Your task to perform on an android device: move an email to a new category in the gmail app Image 0: 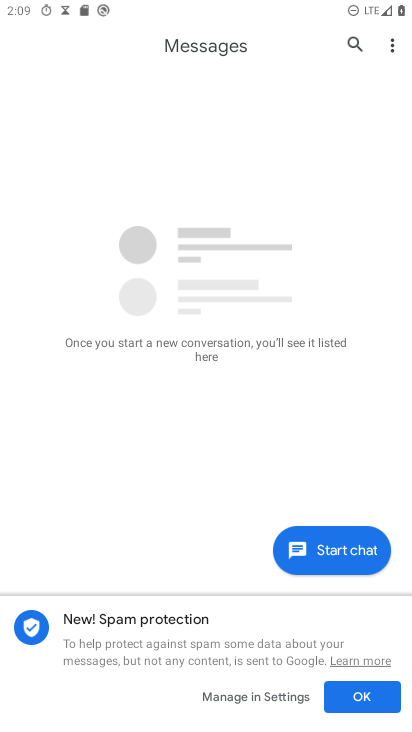
Step 0: press home button
Your task to perform on an android device: move an email to a new category in the gmail app Image 1: 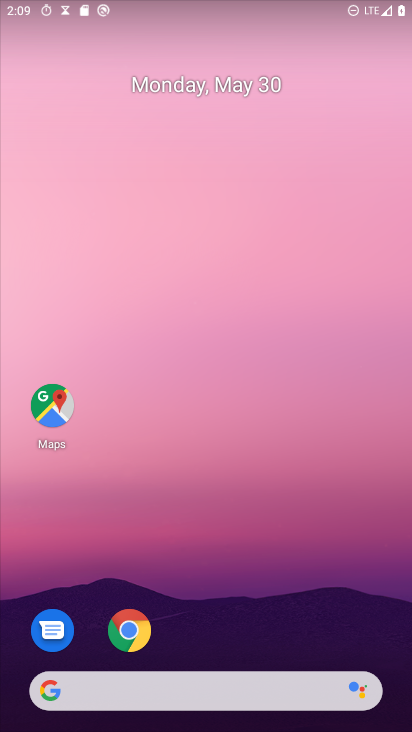
Step 1: drag from (308, 699) to (308, 193)
Your task to perform on an android device: move an email to a new category in the gmail app Image 2: 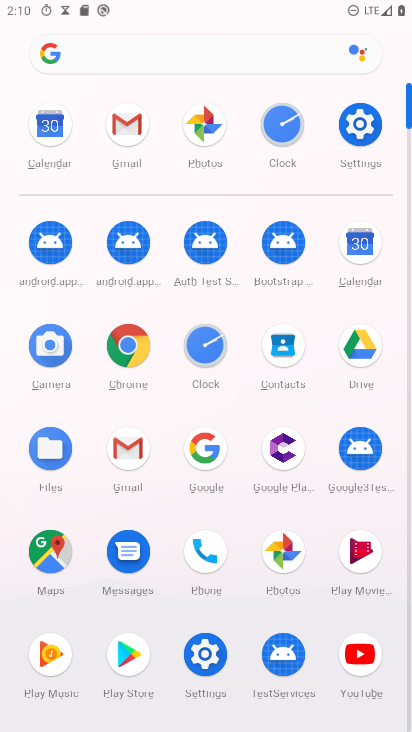
Step 2: click (143, 456)
Your task to perform on an android device: move an email to a new category in the gmail app Image 3: 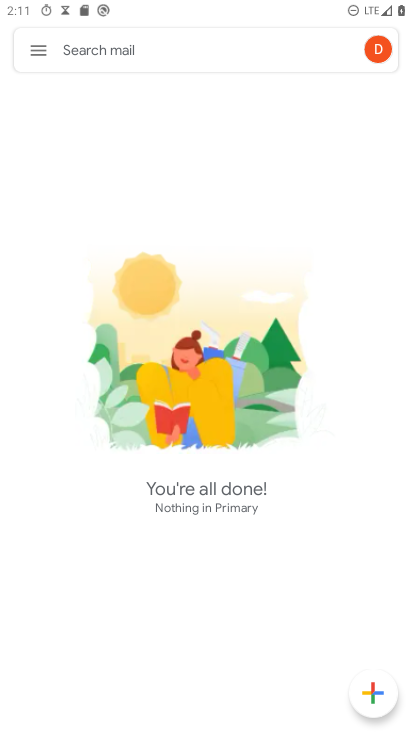
Step 3: click (40, 49)
Your task to perform on an android device: move an email to a new category in the gmail app Image 4: 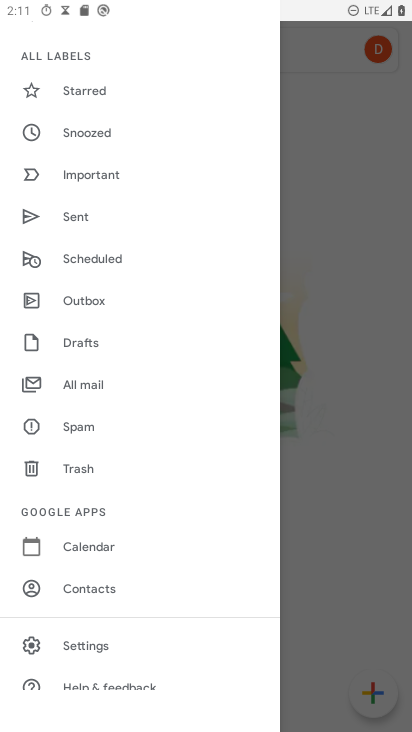
Step 4: click (104, 642)
Your task to perform on an android device: move an email to a new category in the gmail app Image 5: 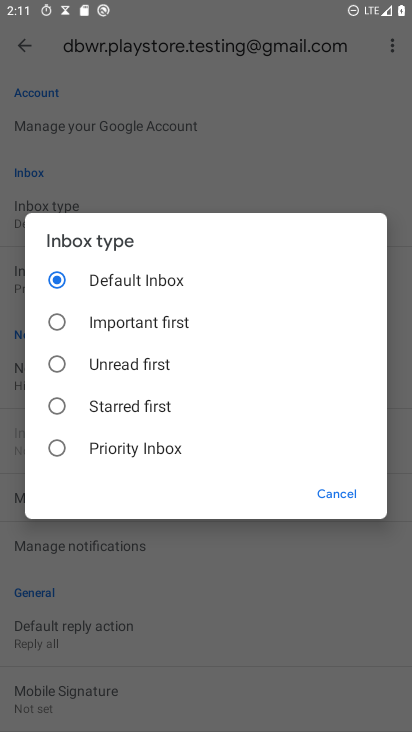
Step 5: click (325, 492)
Your task to perform on an android device: move an email to a new category in the gmail app Image 6: 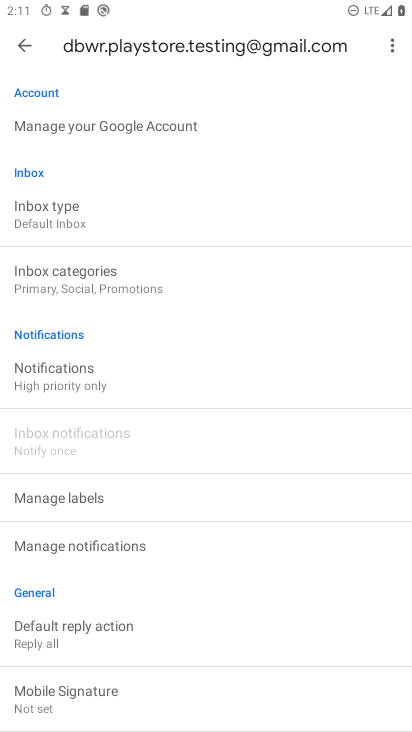
Step 6: click (74, 279)
Your task to perform on an android device: move an email to a new category in the gmail app Image 7: 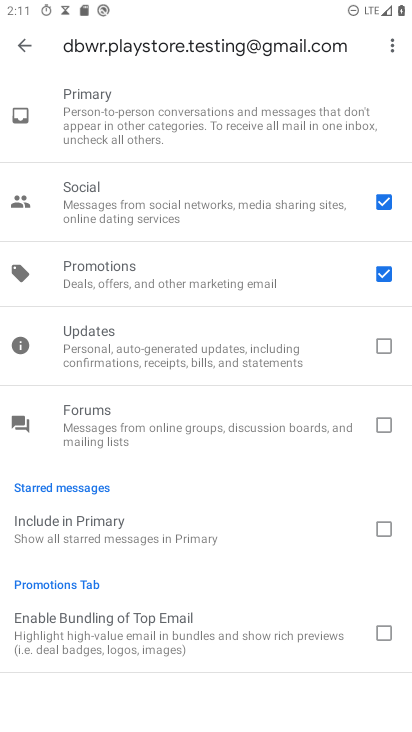
Step 7: click (390, 346)
Your task to perform on an android device: move an email to a new category in the gmail app Image 8: 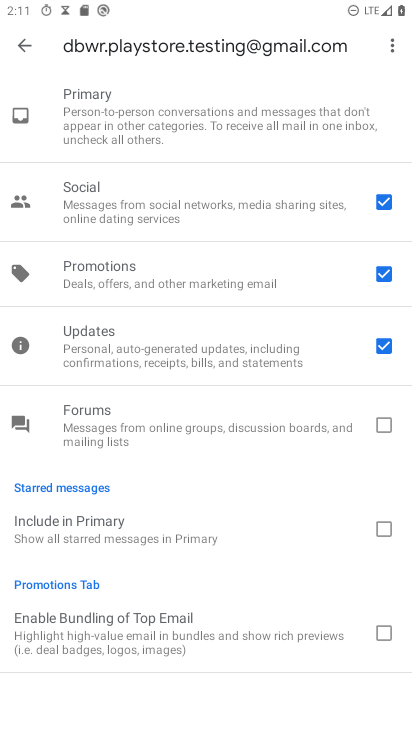
Step 8: task complete